Your task to perform on an android device: Go to Google maps Image 0: 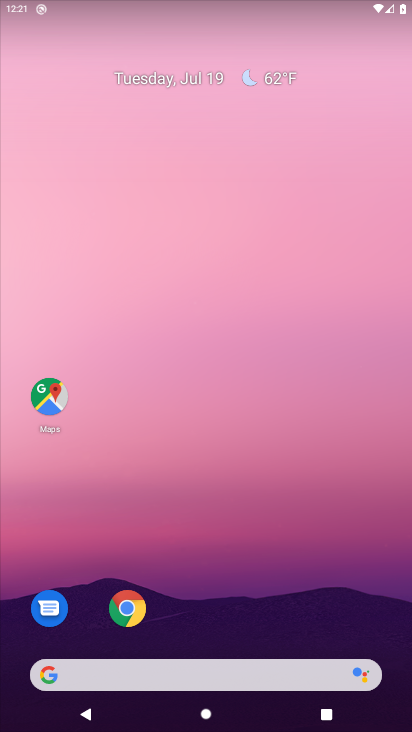
Step 0: press home button
Your task to perform on an android device: Go to Google maps Image 1: 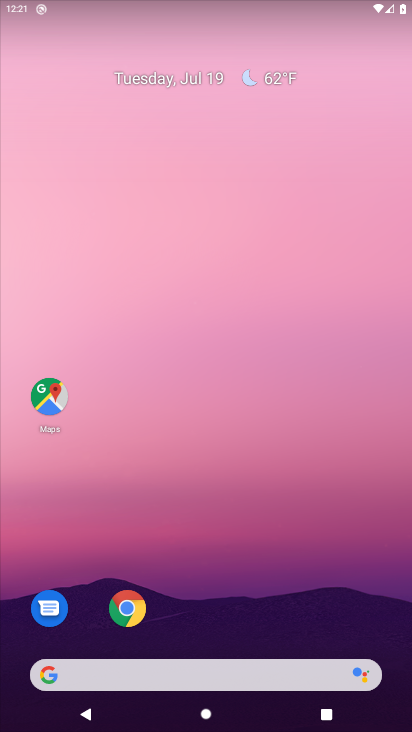
Step 1: click (46, 395)
Your task to perform on an android device: Go to Google maps Image 2: 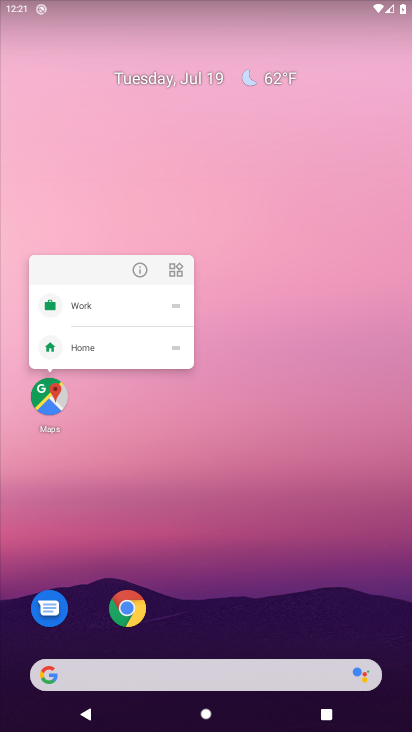
Step 2: click (45, 391)
Your task to perform on an android device: Go to Google maps Image 3: 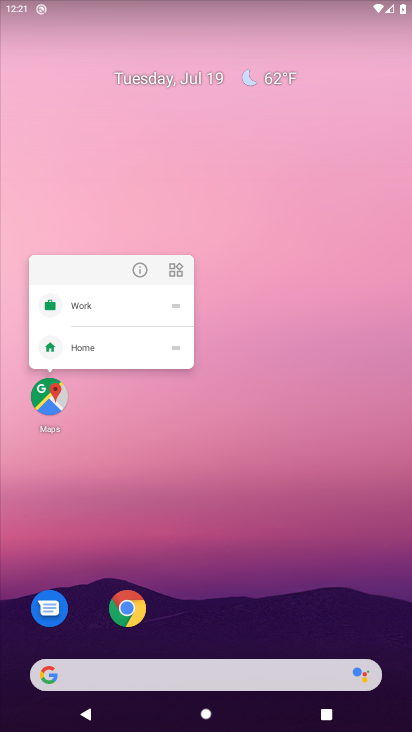
Step 3: click (45, 390)
Your task to perform on an android device: Go to Google maps Image 4: 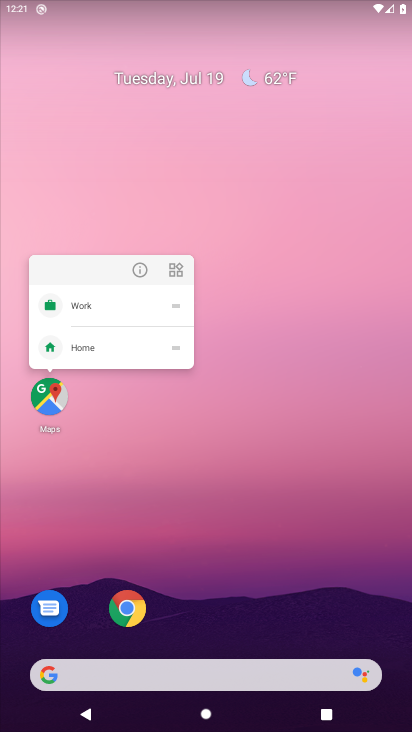
Step 4: click (47, 394)
Your task to perform on an android device: Go to Google maps Image 5: 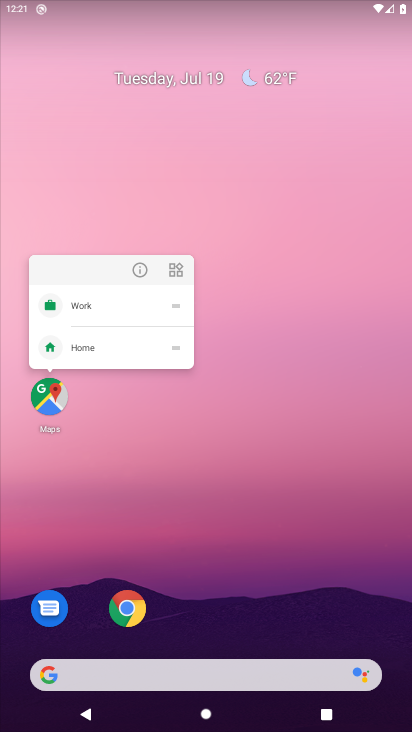
Step 5: click (46, 391)
Your task to perform on an android device: Go to Google maps Image 6: 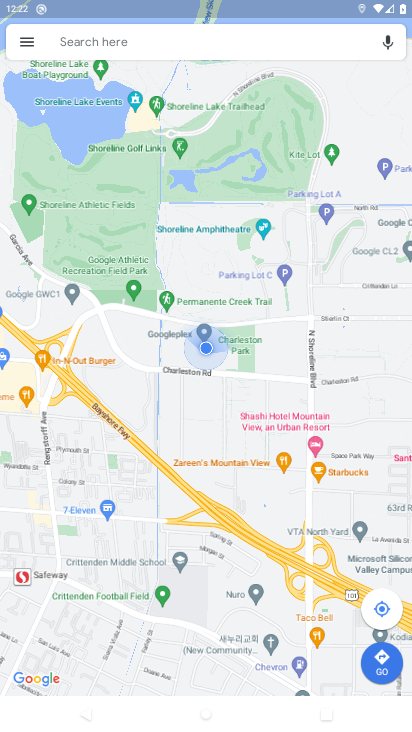
Step 6: task complete